Your task to perform on an android device: Go to Reddit.com Image 0: 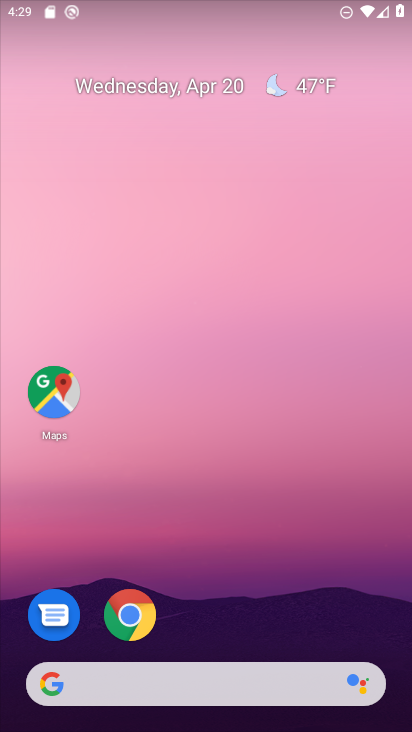
Step 0: click (135, 614)
Your task to perform on an android device: Go to Reddit.com Image 1: 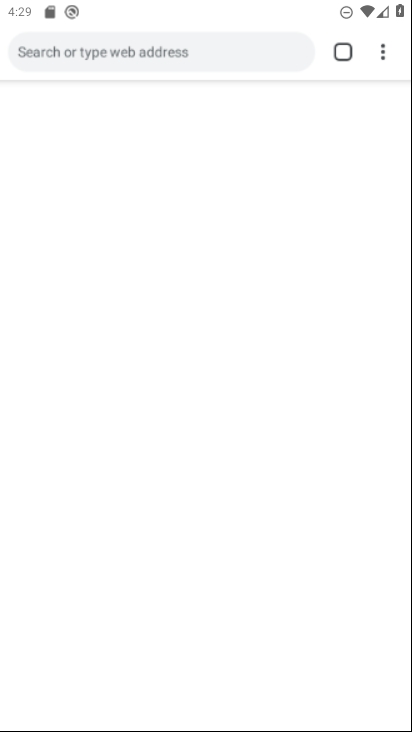
Step 1: click (135, 614)
Your task to perform on an android device: Go to Reddit.com Image 2: 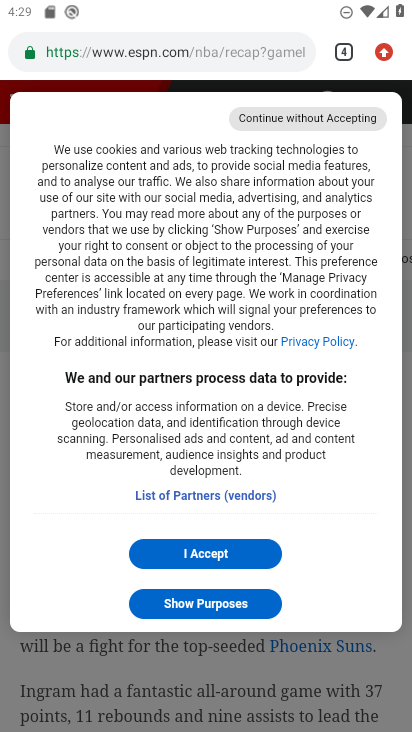
Step 2: click (216, 49)
Your task to perform on an android device: Go to Reddit.com Image 3: 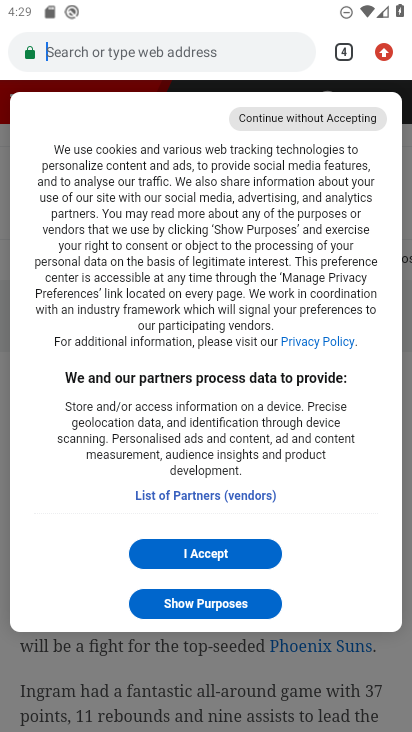
Step 3: click (215, 48)
Your task to perform on an android device: Go to Reddit.com Image 4: 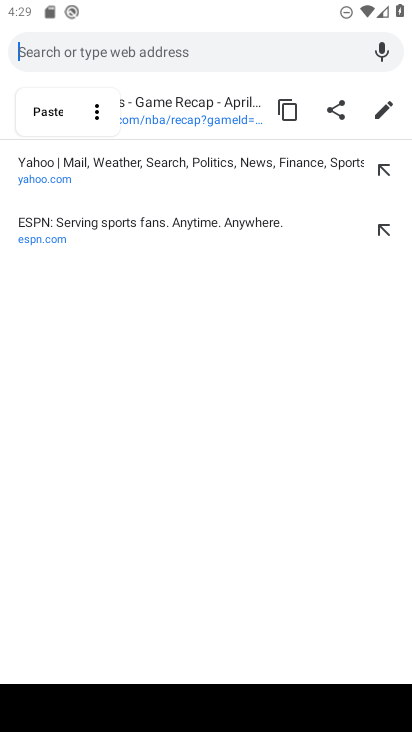
Step 4: type "reddit.com"
Your task to perform on an android device: Go to Reddit.com Image 5: 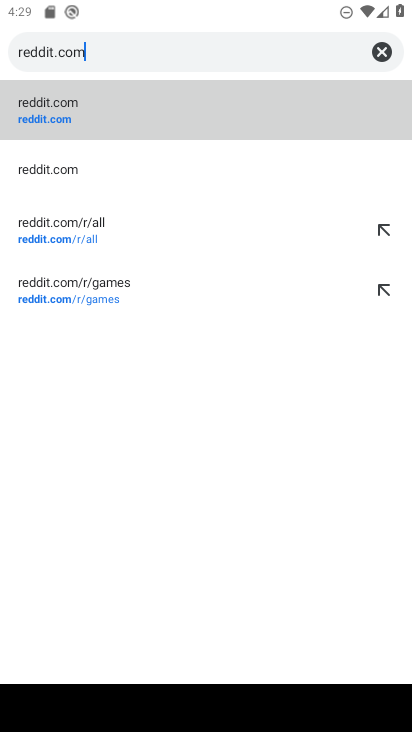
Step 5: click (43, 121)
Your task to perform on an android device: Go to Reddit.com Image 6: 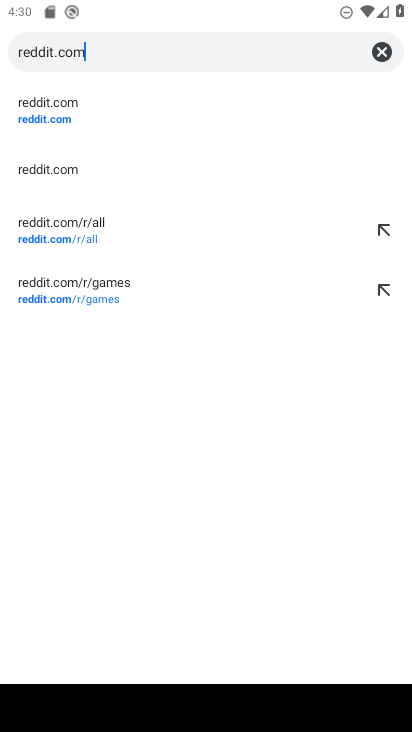
Step 6: click (70, 118)
Your task to perform on an android device: Go to Reddit.com Image 7: 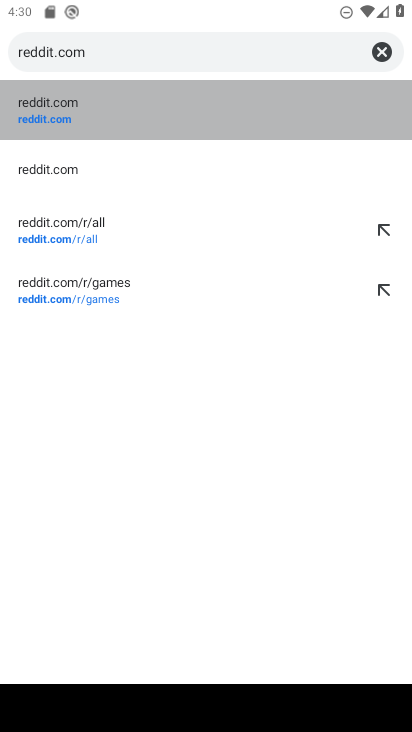
Step 7: click (74, 119)
Your task to perform on an android device: Go to Reddit.com Image 8: 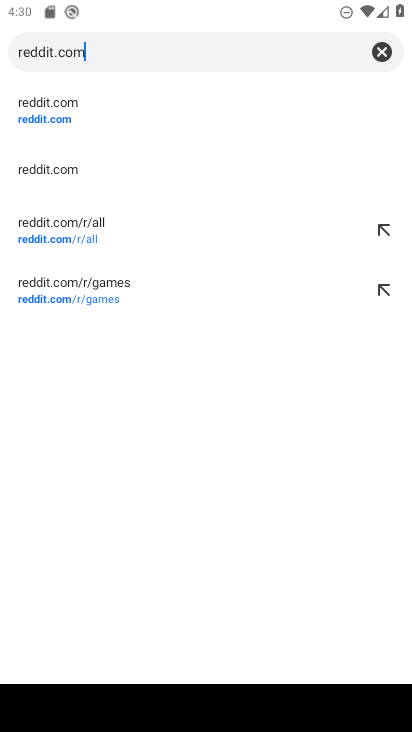
Step 8: click (75, 120)
Your task to perform on an android device: Go to Reddit.com Image 9: 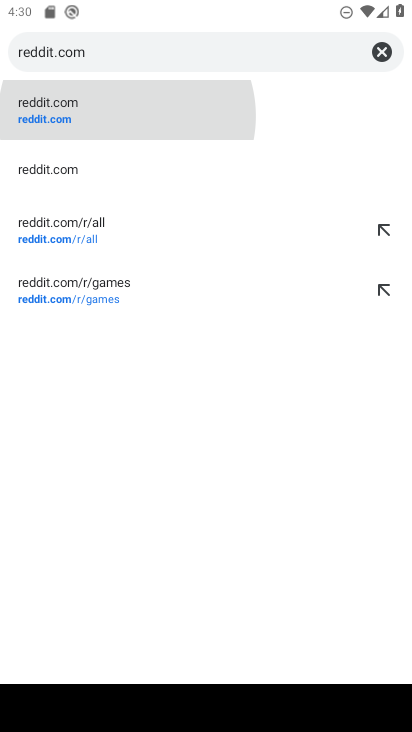
Step 9: click (75, 120)
Your task to perform on an android device: Go to Reddit.com Image 10: 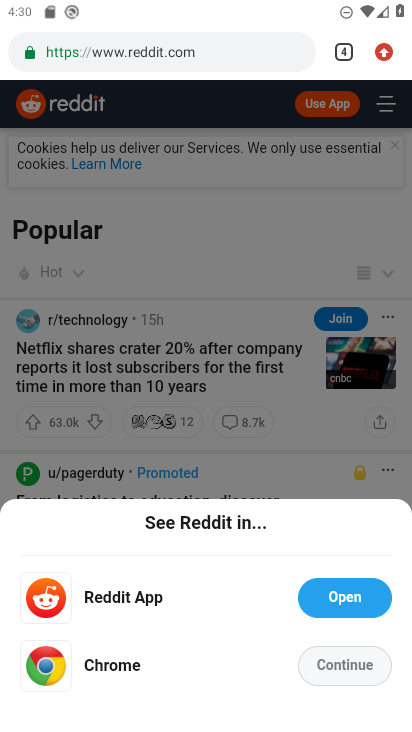
Step 10: task complete